Your task to perform on an android device: Go to Amazon Image 0: 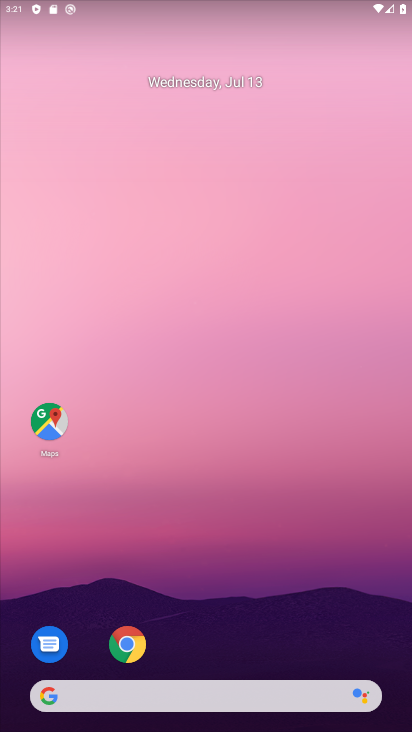
Step 0: click (123, 656)
Your task to perform on an android device: Go to Amazon Image 1: 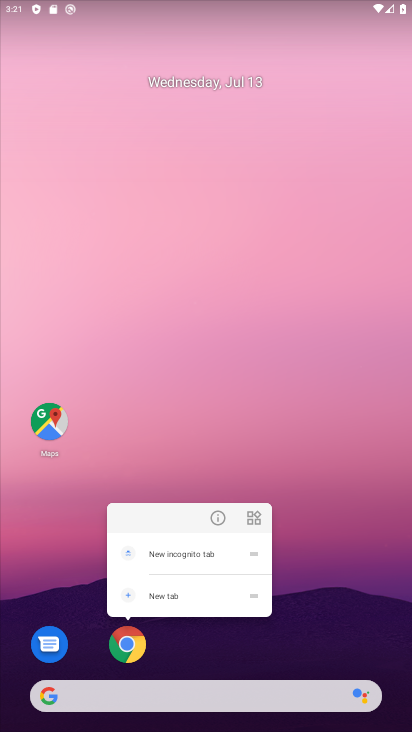
Step 1: click (137, 652)
Your task to perform on an android device: Go to Amazon Image 2: 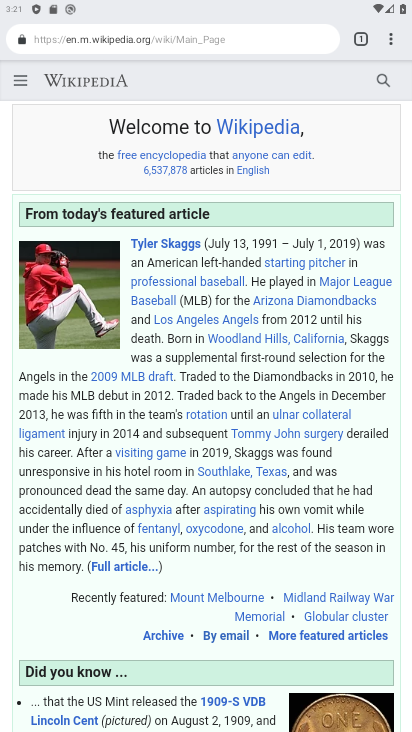
Step 2: click (356, 34)
Your task to perform on an android device: Go to Amazon Image 3: 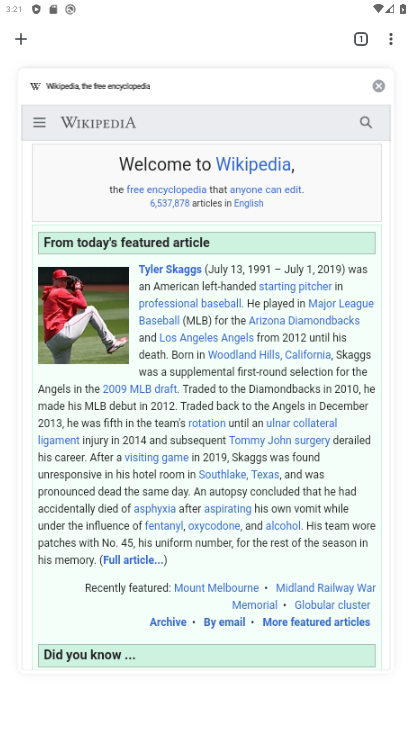
Step 3: click (15, 40)
Your task to perform on an android device: Go to Amazon Image 4: 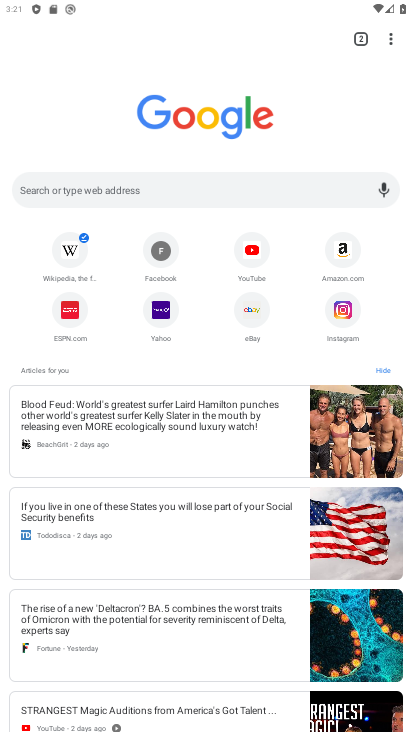
Step 4: click (351, 247)
Your task to perform on an android device: Go to Amazon Image 5: 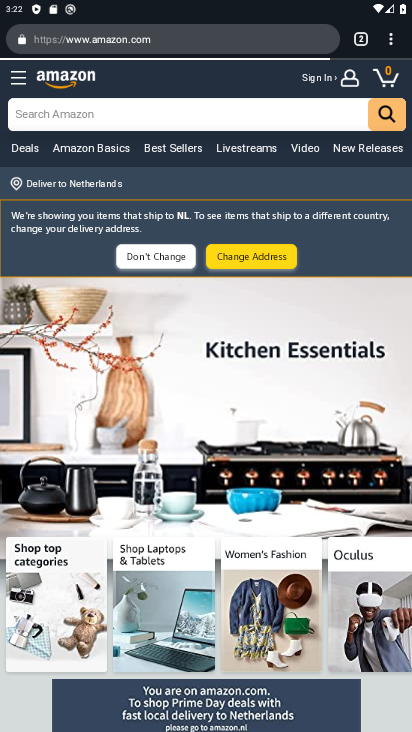
Step 5: task complete